Your task to perform on an android device: delete location history Image 0: 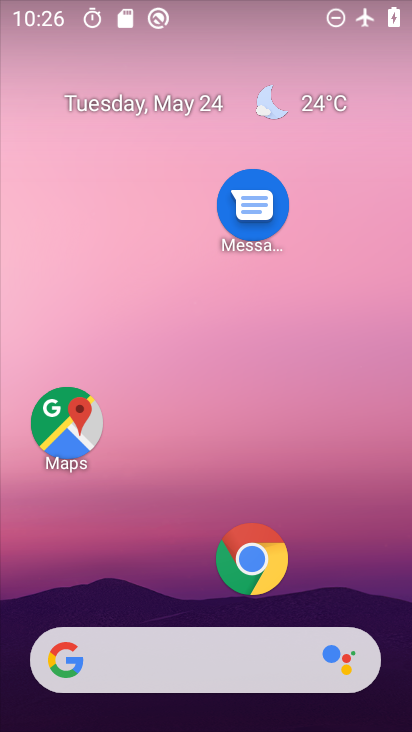
Step 0: click (52, 450)
Your task to perform on an android device: delete location history Image 1: 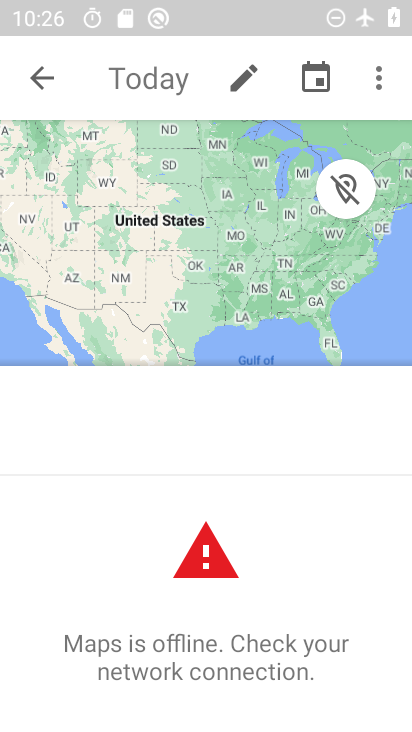
Step 1: click (376, 88)
Your task to perform on an android device: delete location history Image 2: 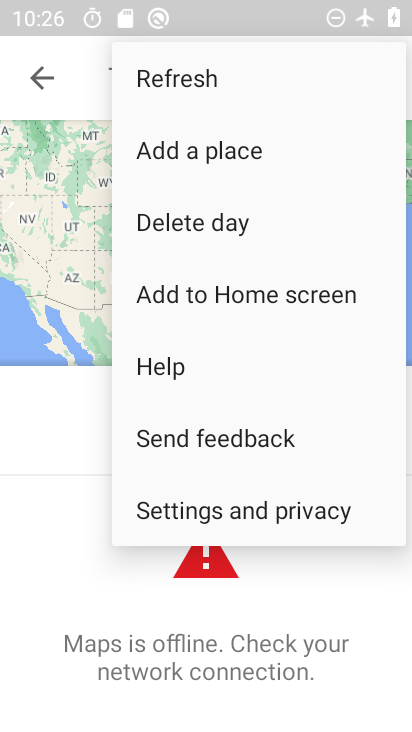
Step 2: click (323, 494)
Your task to perform on an android device: delete location history Image 3: 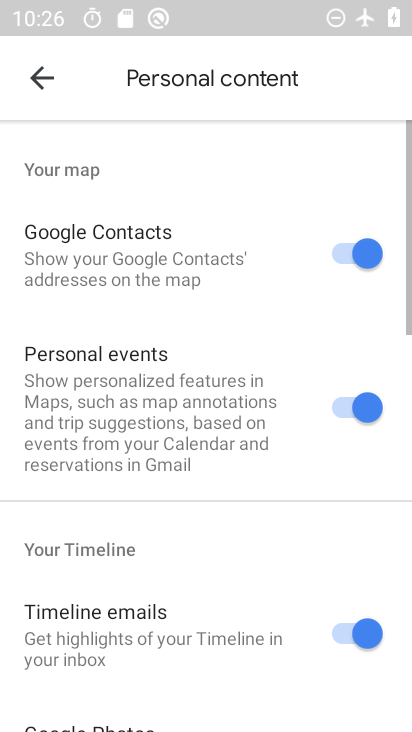
Step 3: drag from (181, 652) to (238, 187)
Your task to perform on an android device: delete location history Image 4: 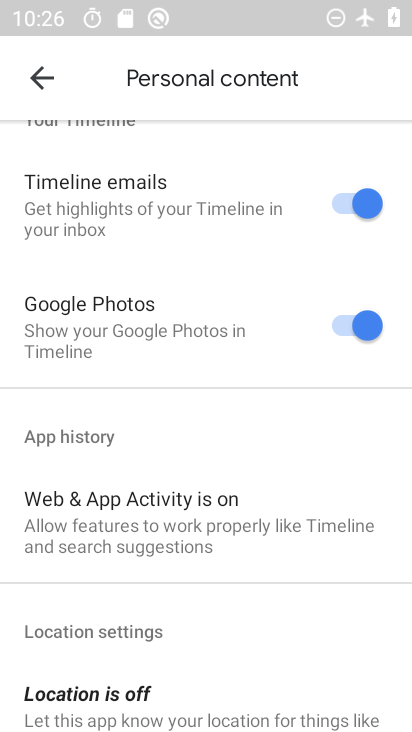
Step 4: drag from (195, 661) to (208, 339)
Your task to perform on an android device: delete location history Image 5: 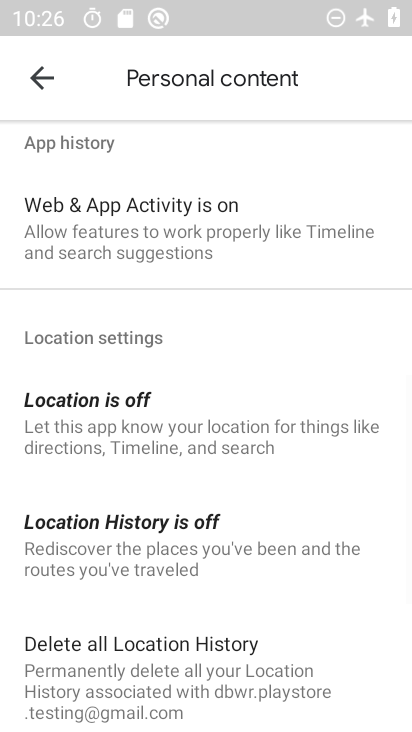
Step 5: click (177, 654)
Your task to perform on an android device: delete location history Image 6: 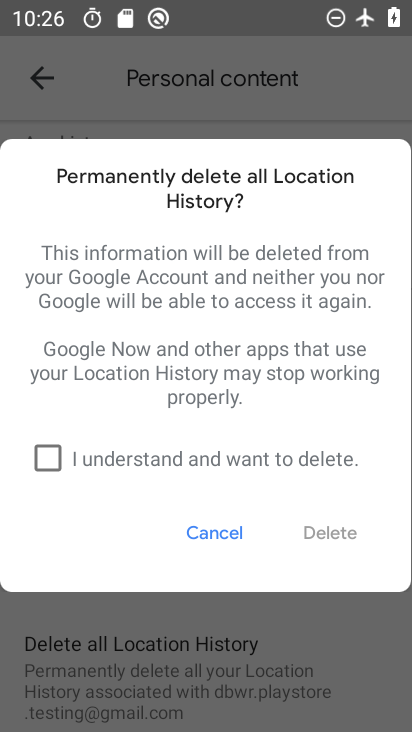
Step 6: click (49, 461)
Your task to perform on an android device: delete location history Image 7: 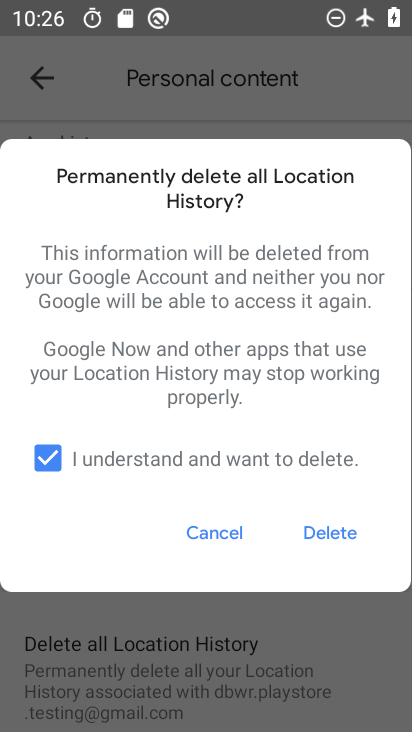
Step 7: click (328, 534)
Your task to perform on an android device: delete location history Image 8: 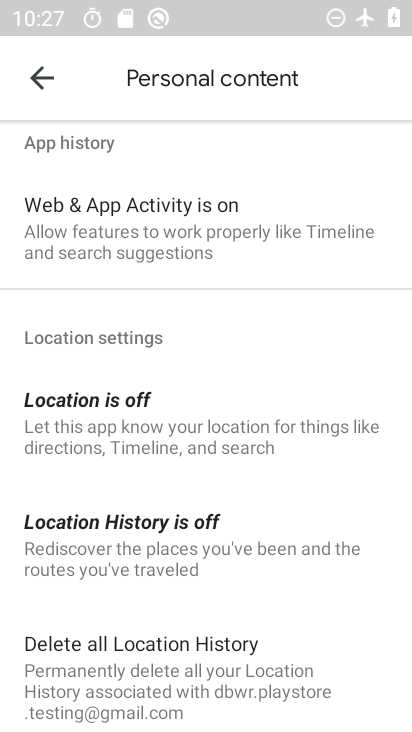
Step 8: task complete